Your task to perform on an android device: toggle notification dots Image 0: 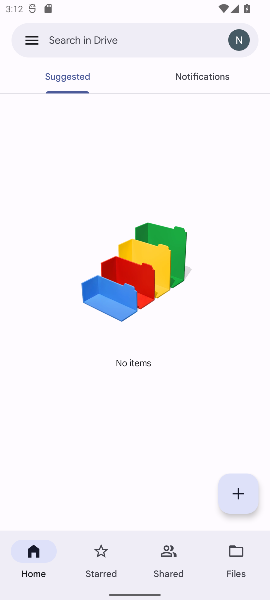
Step 0: press home button
Your task to perform on an android device: toggle notification dots Image 1: 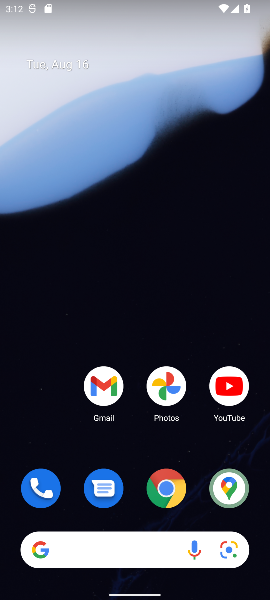
Step 1: task complete